Your task to perform on an android device: Check the news Image 0: 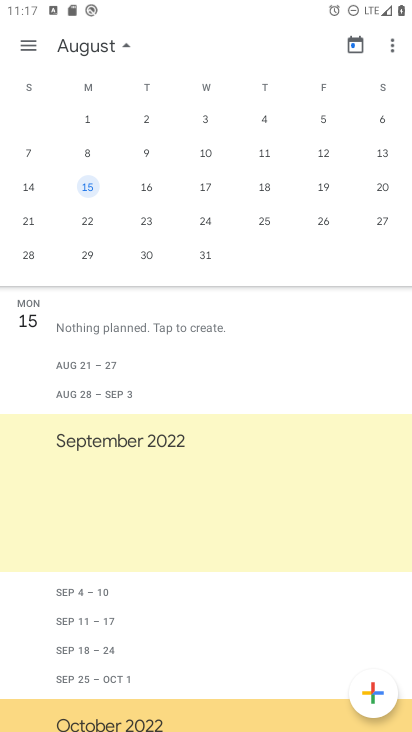
Step 0: press home button
Your task to perform on an android device: Check the news Image 1: 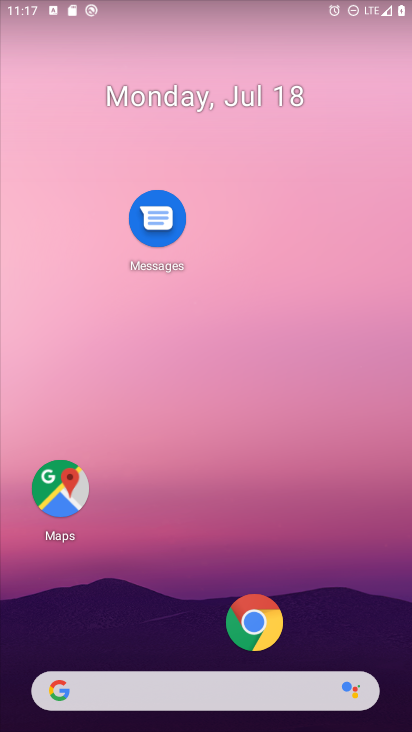
Step 1: drag from (195, 696) to (208, 58)
Your task to perform on an android device: Check the news Image 2: 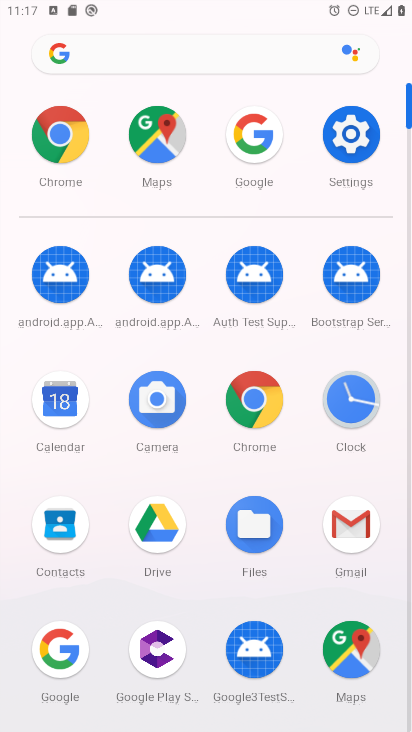
Step 2: click (70, 654)
Your task to perform on an android device: Check the news Image 3: 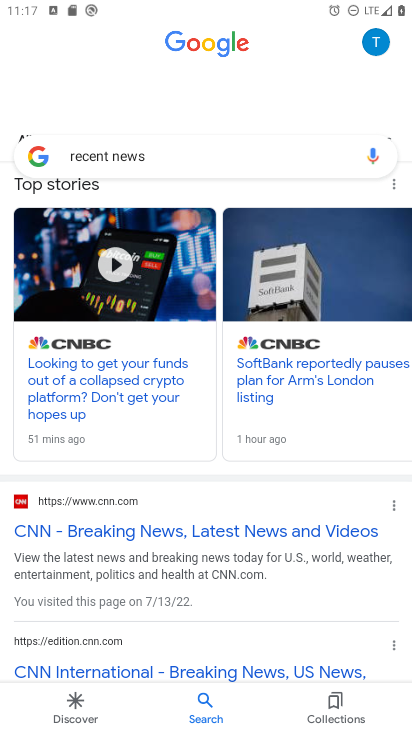
Step 3: task complete